Your task to perform on an android device: Open the web browser Image 0: 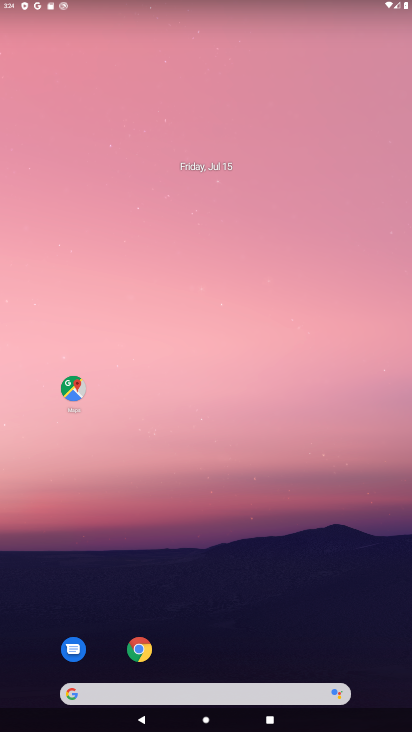
Step 0: drag from (215, 622) to (216, 162)
Your task to perform on an android device: Open the web browser Image 1: 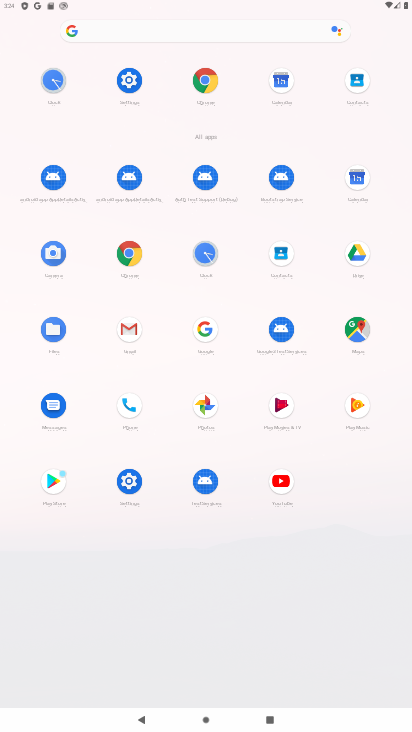
Step 1: click (222, 85)
Your task to perform on an android device: Open the web browser Image 2: 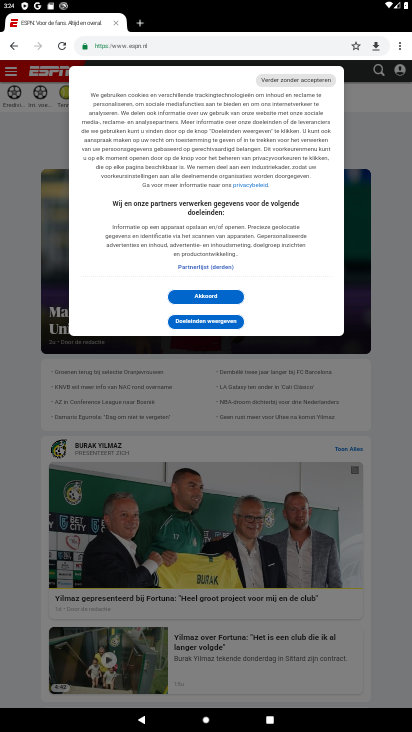
Step 2: task complete